Your task to perform on an android device: Show me recent news Image 0: 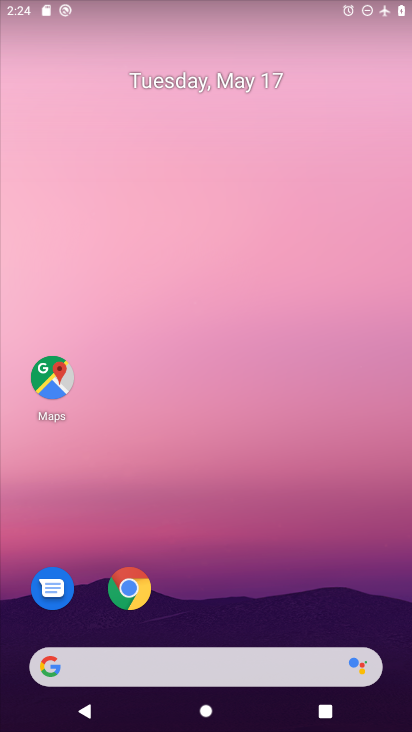
Step 0: click (144, 598)
Your task to perform on an android device: Show me recent news Image 1: 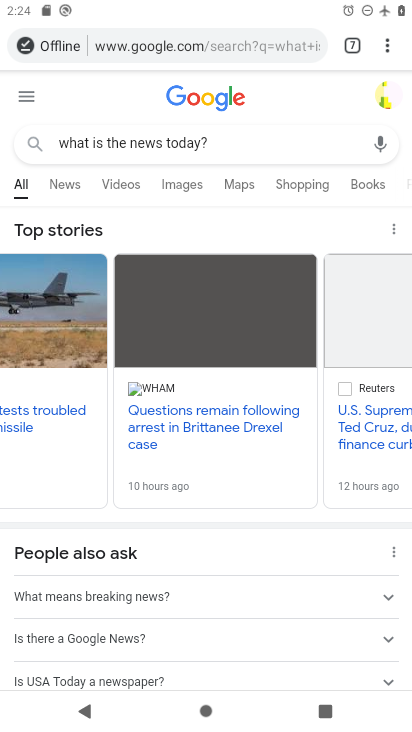
Step 1: click (356, 48)
Your task to perform on an android device: Show me recent news Image 2: 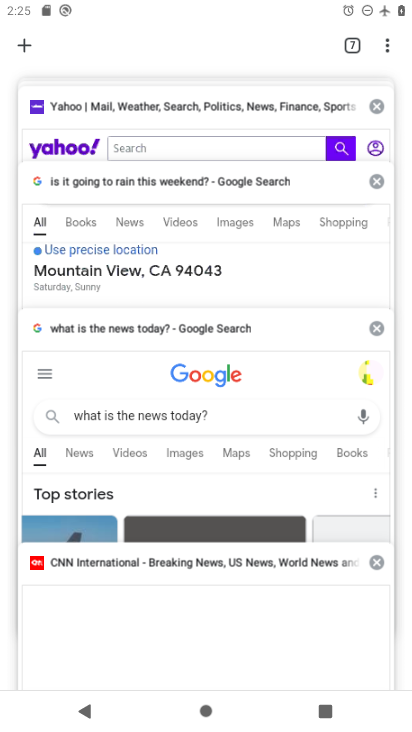
Step 2: drag from (208, 268) to (204, 668)
Your task to perform on an android device: Show me recent news Image 3: 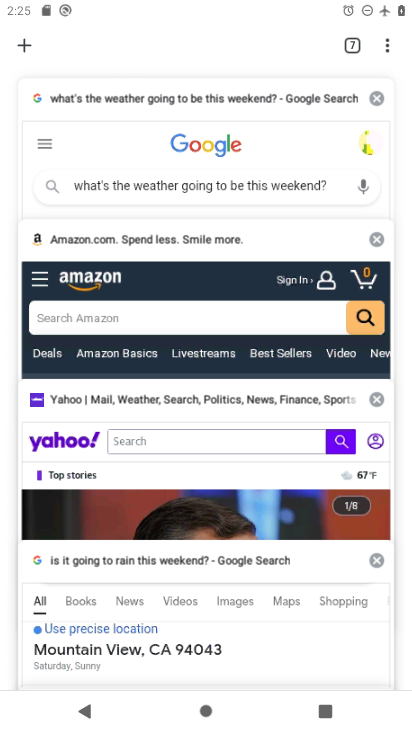
Step 3: drag from (201, 146) to (154, 367)
Your task to perform on an android device: Show me recent news Image 4: 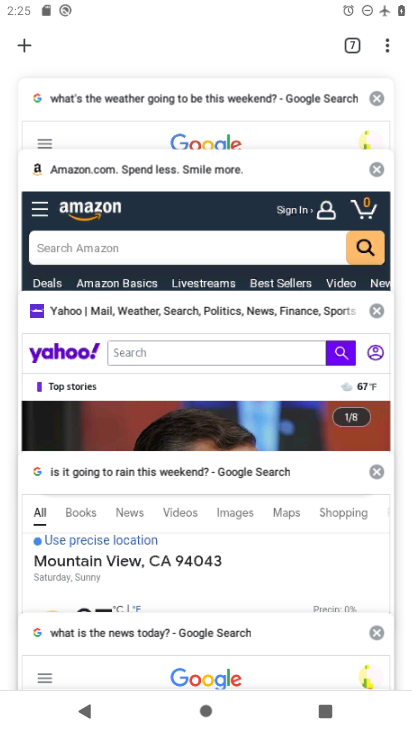
Step 4: click (159, 218)
Your task to perform on an android device: Show me recent news Image 5: 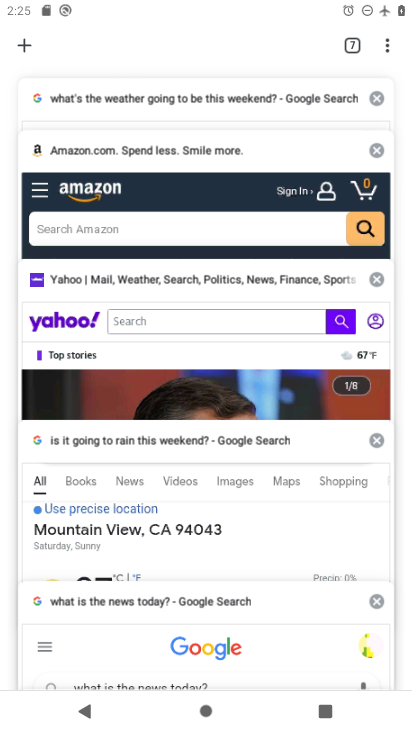
Step 5: click (22, 55)
Your task to perform on an android device: Show me recent news Image 6: 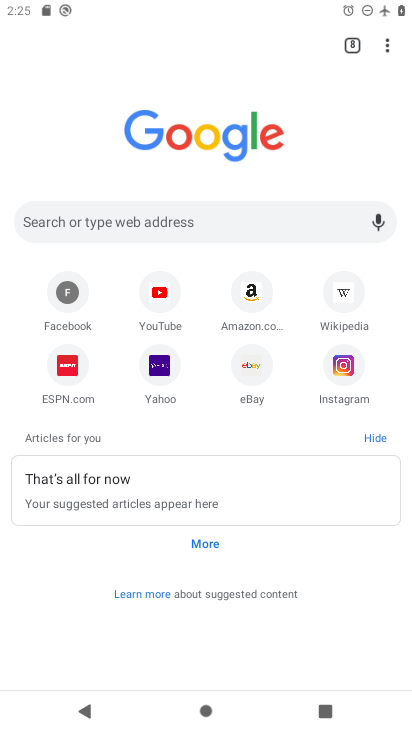
Step 6: click (78, 229)
Your task to perform on an android device: Show me recent news Image 7: 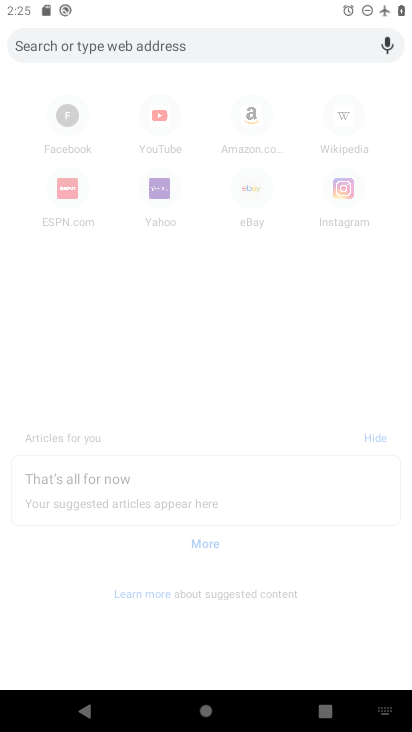
Step 7: type "show me recent newws"
Your task to perform on an android device: Show me recent news Image 8: 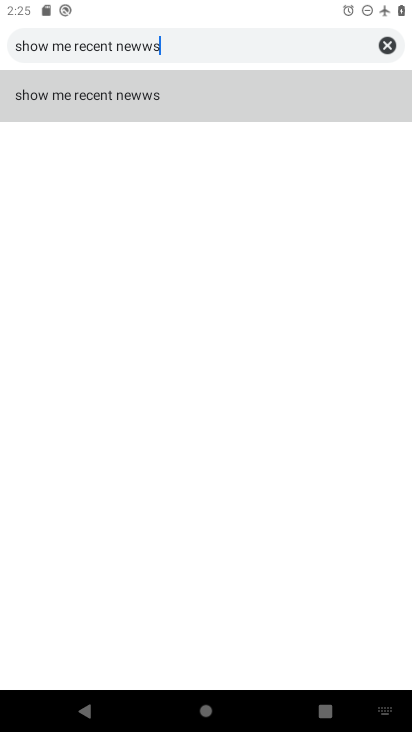
Step 8: click (147, 45)
Your task to perform on an android device: Show me recent news Image 9: 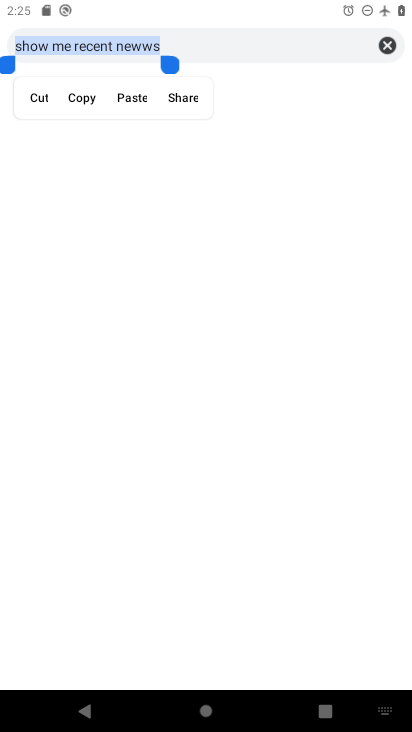
Step 9: click (147, 45)
Your task to perform on an android device: Show me recent news Image 10: 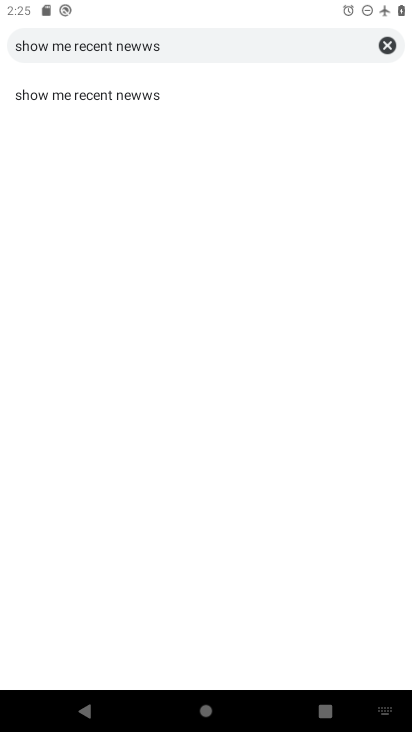
Step 10: click (169, 46)
Your task to perform on an android device: Show me recent news Image 11: 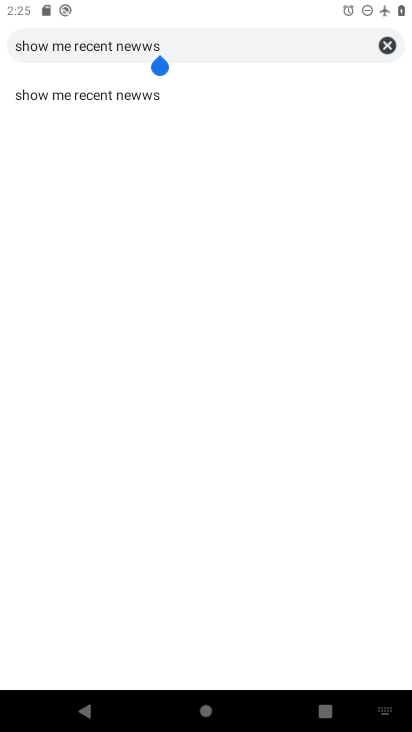
Step 11: click (144, 50)
Your task to perform on an android device: Show me recent news Image 12: 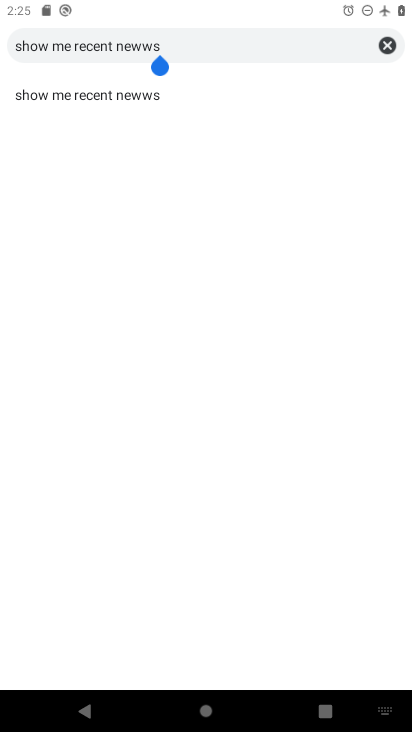
Step 12: click (143, 49)
Your task to perform on an android device: Show me recent news Image 13: 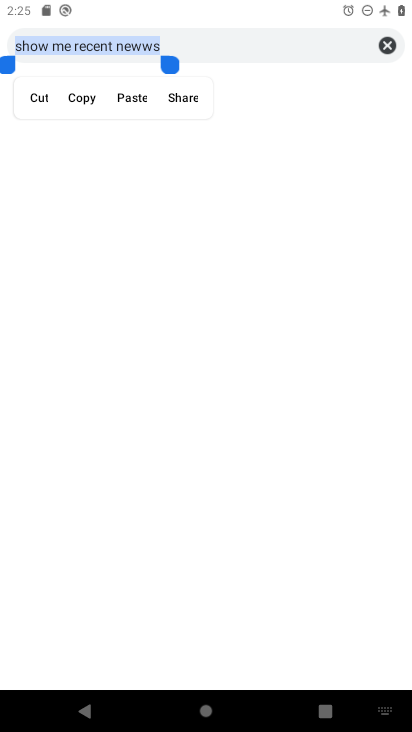
Step 13: click (124, 48)
Your task to perform on an android device: Show me recent news Image 14: 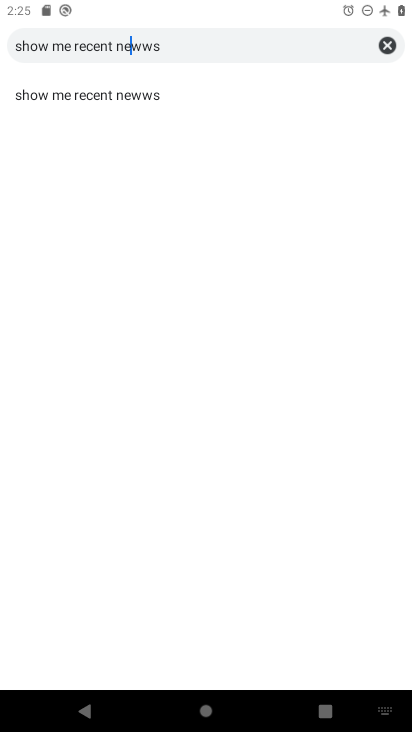
Step 14: click (138, 50)
Your task to perform on an android device: Show me recent news Image 15: 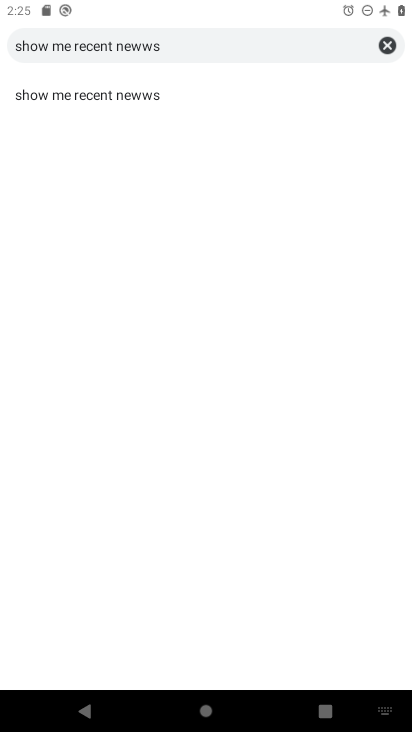
Step 15: click (138, 50)
Your task to perform on an android device: Show me recent news Image 16: 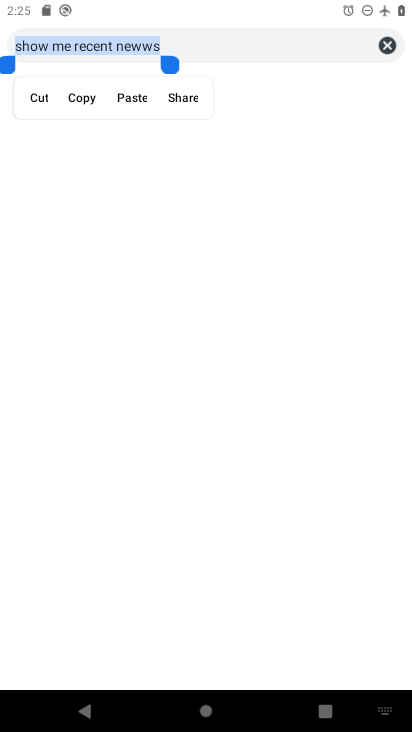
Step 16: drag from (10, 62) to (140, 54)
Your task to perform on an android device: Show me recent news Image 17: 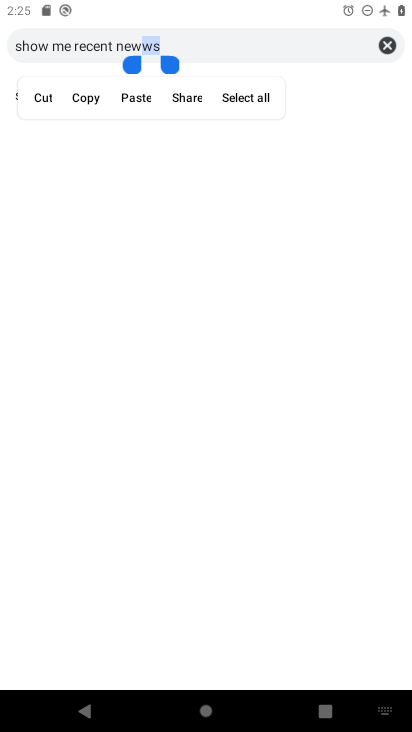
Step 17: click (38, 100)
Your task to perform on an android device: Show me recent news Image 18: 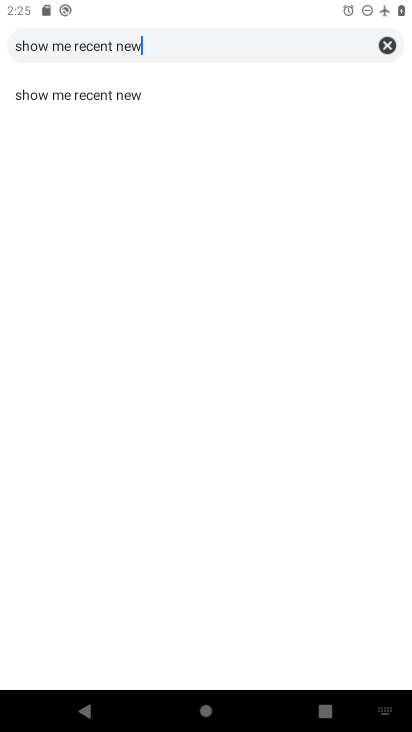
Step 18: type "s"
Your task to perform on an android device: Show me recent news Image 19: 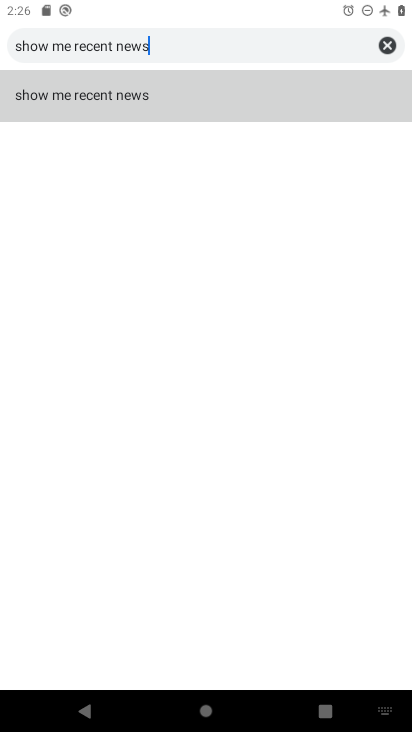
Step 19: click (56, 116)
Your task to perform on an android device: Show me recent news Image 20: 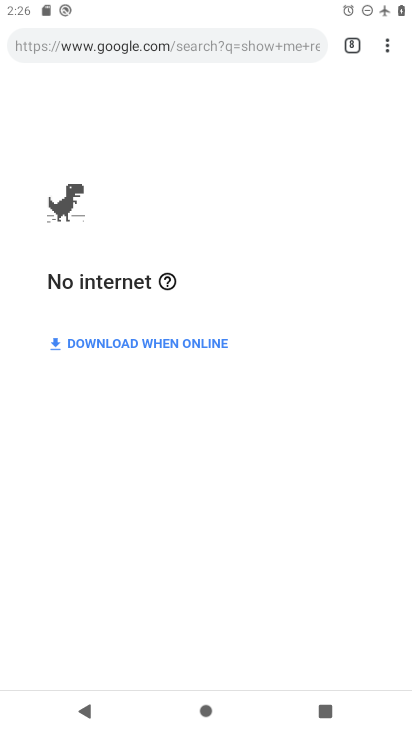
Step 20: task complete